Your task to perform on an android device: set the timer Image 0: 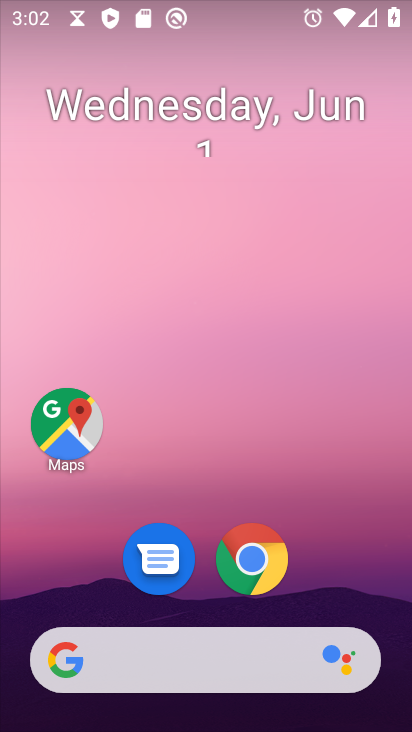
Step 0: drag from (324, 576) to (358, 1)
Your task to perform on an android device: set the timer Image 1: 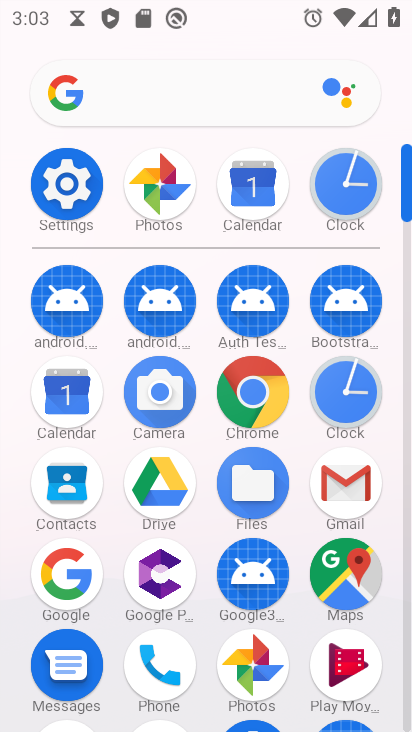
Step 1: click (333, 400)
Your task to perform on an android device: set the timer Image 2: 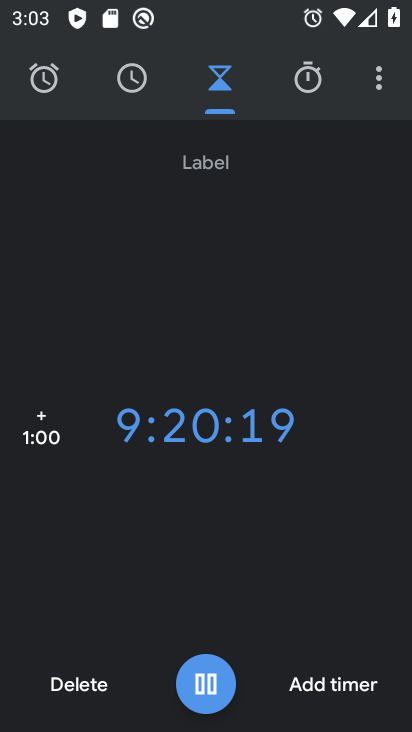
Step 2: click (299, 687)
Your task to perform on an android device: set the timer Image 3: 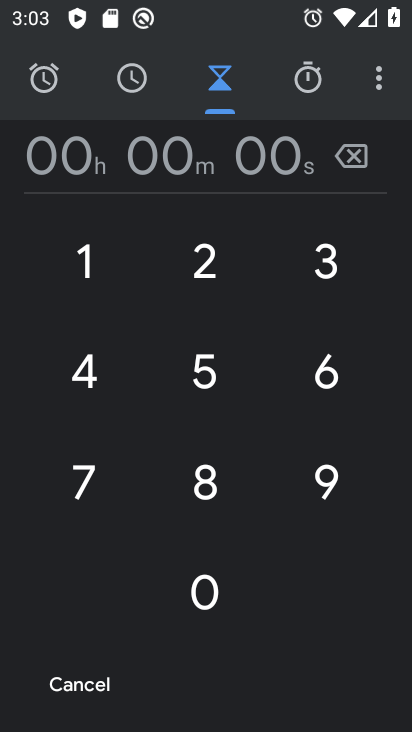
Step 3: click (97, 279)
Your task to perform on an android device: set the timer Image 4: 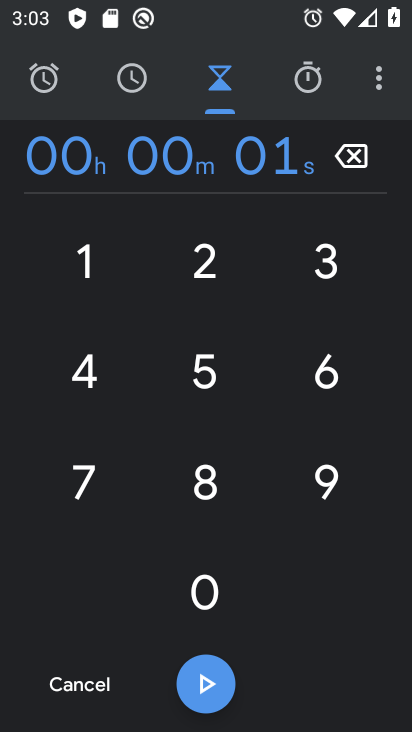
Step 4: click (98, 279)
Your task to perform on an android device: set the timer Image 5: 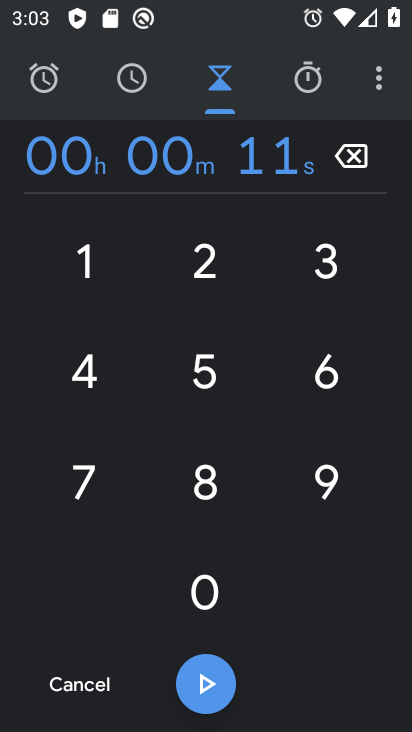
Step 5: click (98, 279)
Your task to perform on an android device: set the timer Image 6: 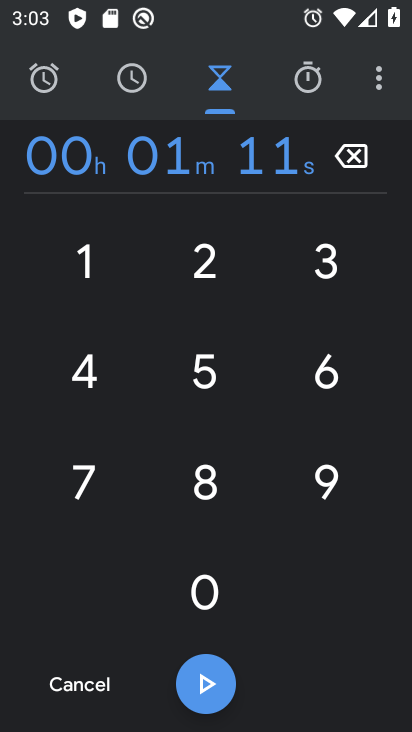
Step 6: click (98, 279)
Your task to perform on an android device: set the timer Image 7: 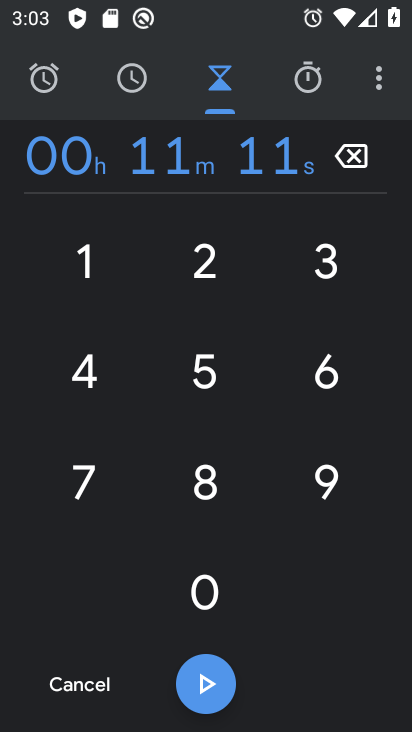
Step 7: click (98, 279)
Your task to perform on an android device: set the timer Image 8: 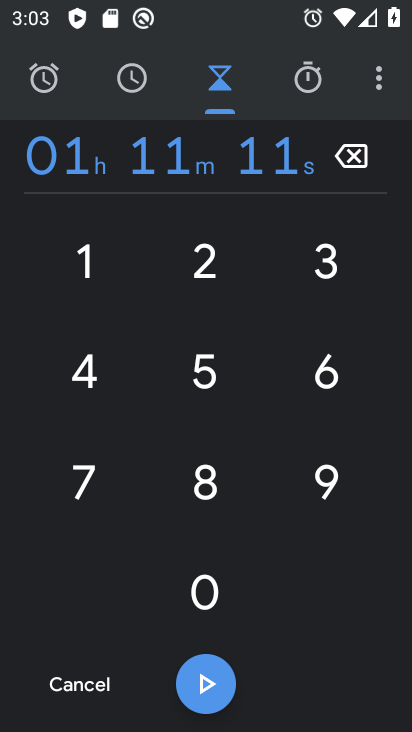
Step 8: click (98, 279)
Your task to perform on an android device: set the timer Image 9: 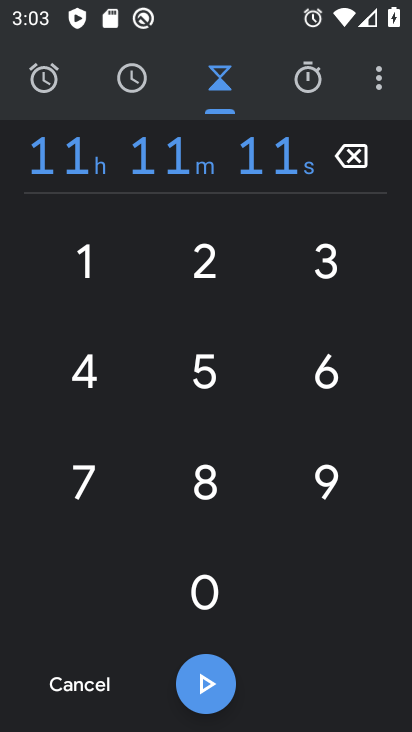
Step 9: click (219, 686)
Your task to perform on an android device: set the timer Image 10: 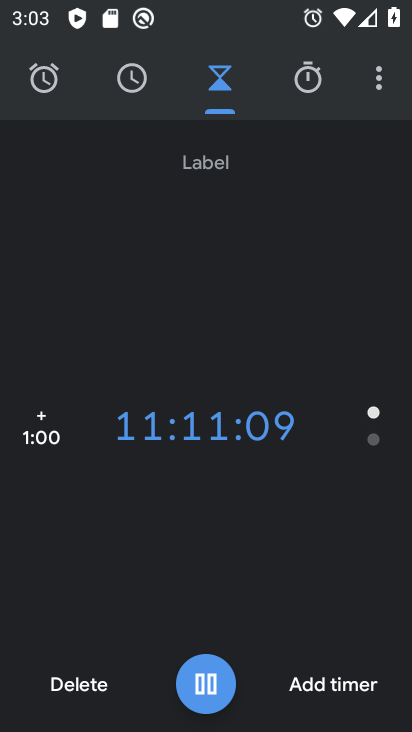
Step 10: task complete